Your task to perform on an android device: turn on airplane mode Image 0: 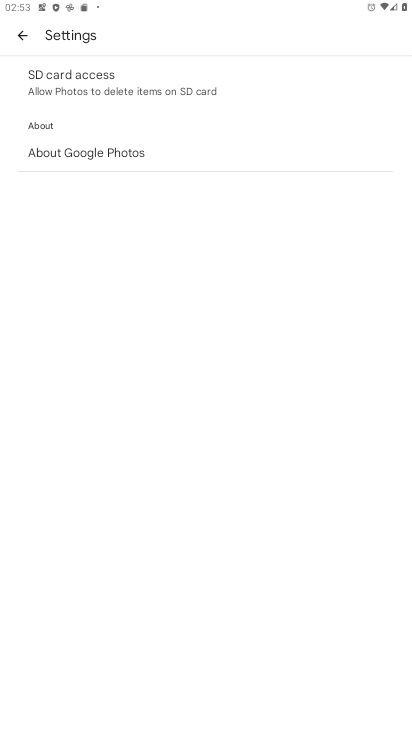
Step 0: press home button
Your task to perform on an android device: turn on airplane mode Image 1: 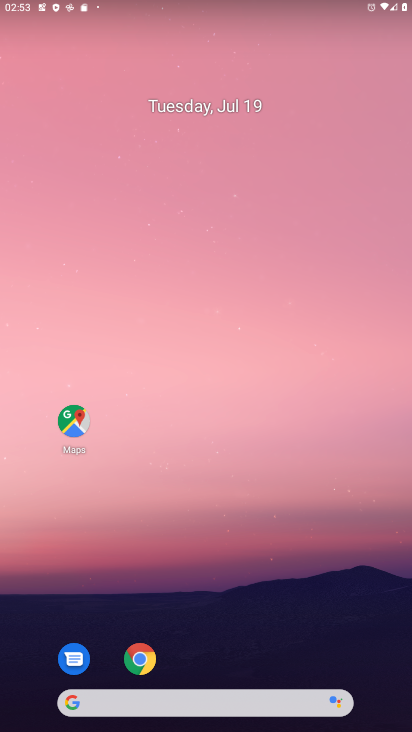
Step 1: drag from (281, 4) to (202, 560)
Your task to perform on an android device: turn on airplane mode Image 2: 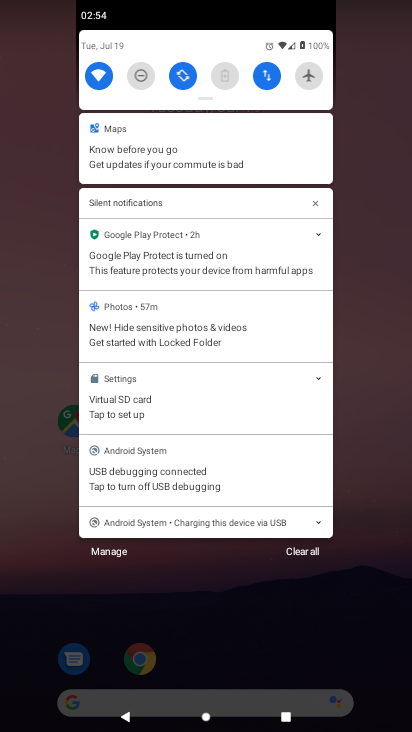
Step 2: click (306, 86)
Your task to perform on an android device: turn on airplane mode Image 3: 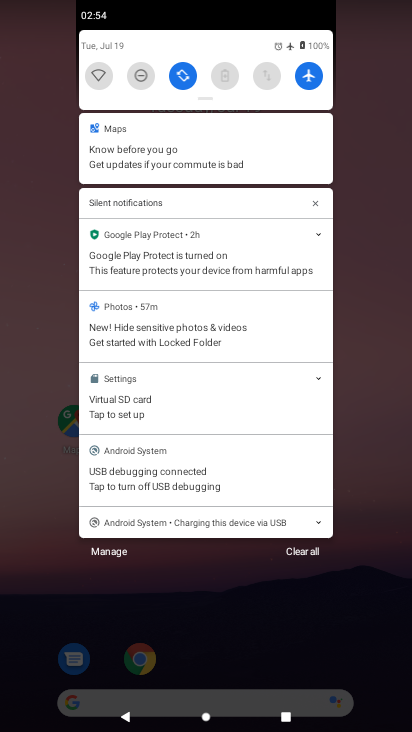
Step 3: task complete